Your task to perform on an android device: Open the calendar app, open the side menu, and click the "Day" option Image 0: 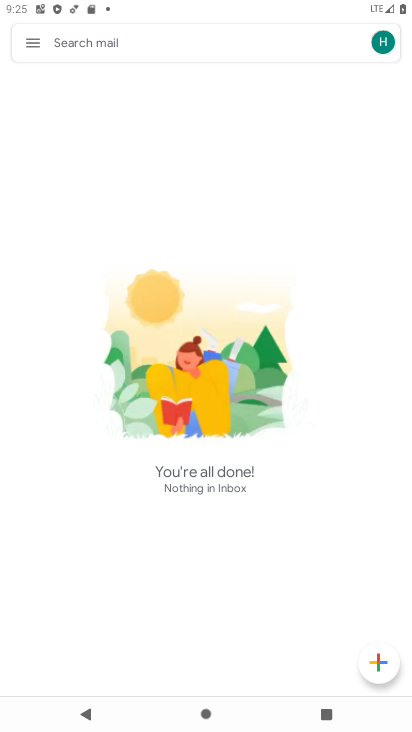
Step 0: press home button
Your task to perform on an android device: Open the calendar app, open the side menu, and click the "Day" option Image 1: 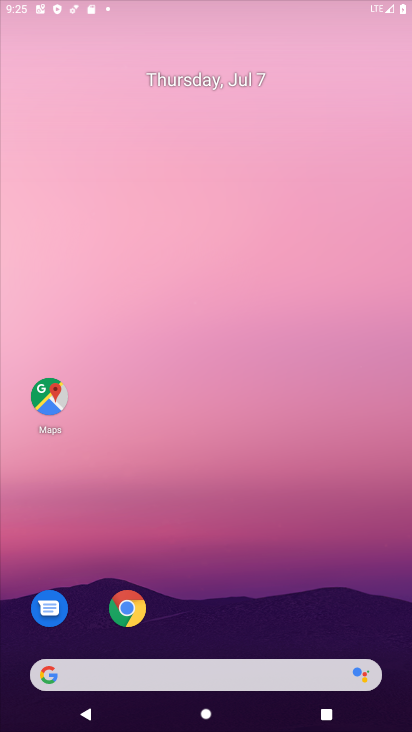
Step 1: drag from (236, 474) to (264, 112)
Your task to perform on an android device: Open the calendar app, open the side menu, and click the "Day" option Image 2: 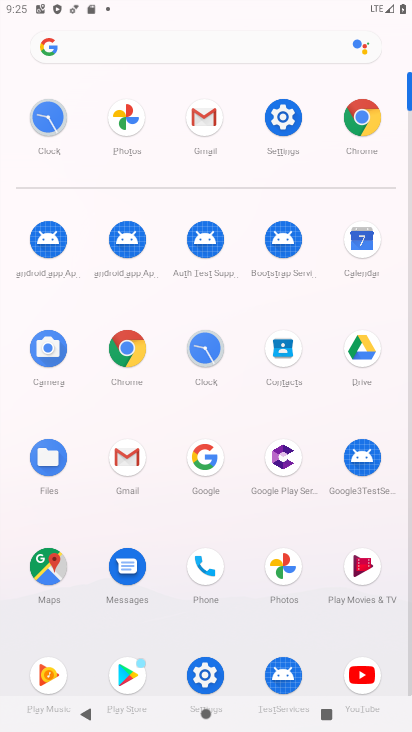
Step 2: click (357, 244)
Your task to perform on an android device: Open the calendar app, open the side menu, and click the "Day" option Image 3: 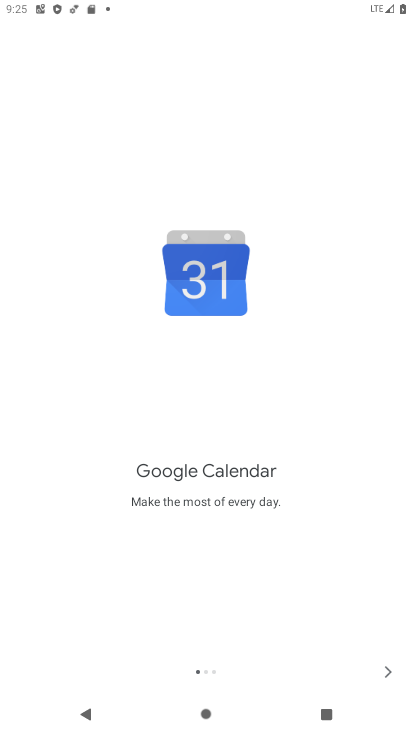
Step 3: click (386, 675)
Your task to perform on an android device: Open the calendar app, open the side menu, and click the "Day" option Image 4: 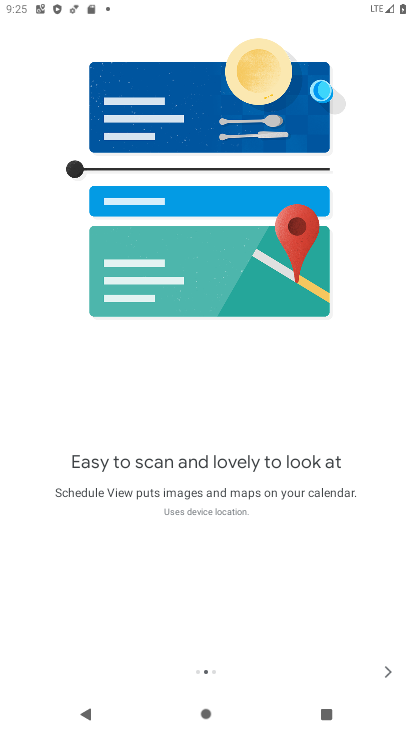
Step 4: click (386, 675)
Your task to perform on an android device: Open the calendar app, open the side menu, and click the "Day" option Image 5: 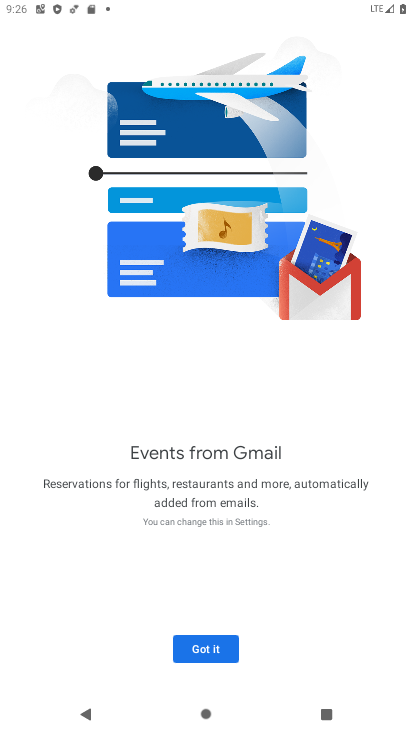
Step 5: click (206, 644)
Your task to perform on an android device: Open the calendar app, open the side menu, and click the "Day" option Image 6: 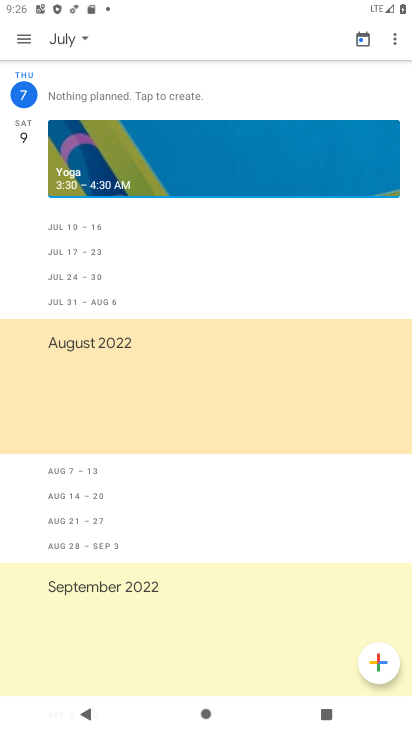
Step 6: click (23, 38)
Your task to perform on an android device: Open the calendar app, open the side menu, and click the "Day" option Image 7: 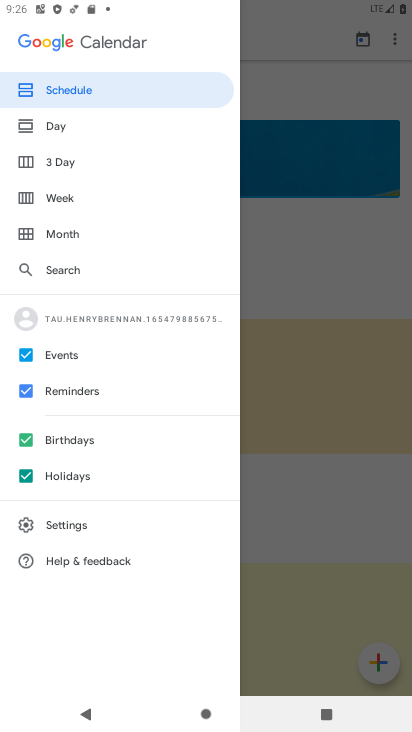
Step 7: click (68, 128)
Your task to perform on an android device: Open the calendar app, open the side menu, and click the "Day" option Image 8: 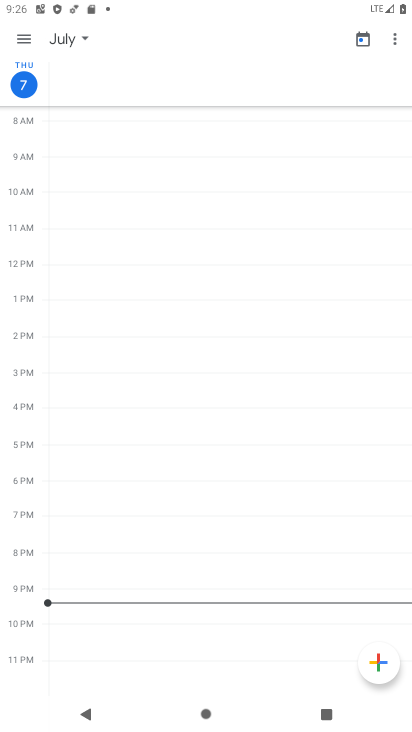
Step 8: task complete